Your task to perform on an android device: all mails in gmail Image 0: 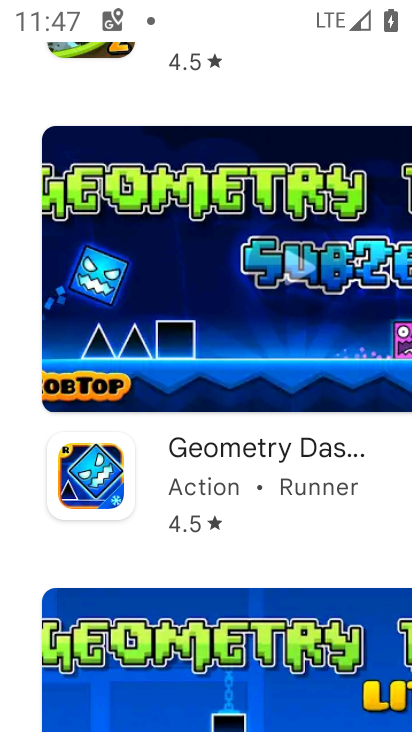
Step 0: press home button
Your task to perform on an android device: all mails in gmail Image 1: 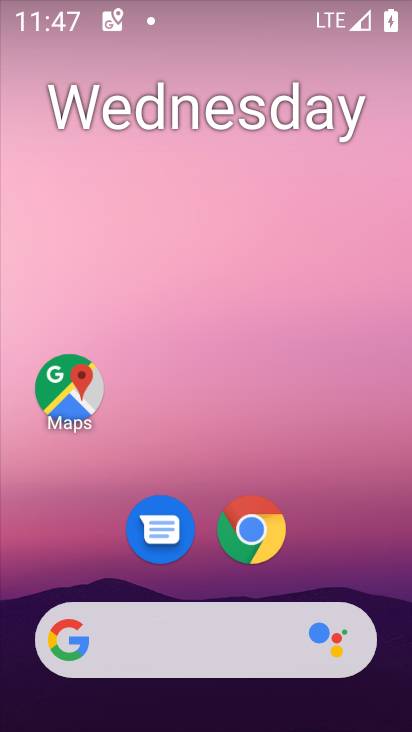
Step 1: drag from (386, 626) to (350, 128)
Your task to perform on an android device: all mails in gmail Image 2: 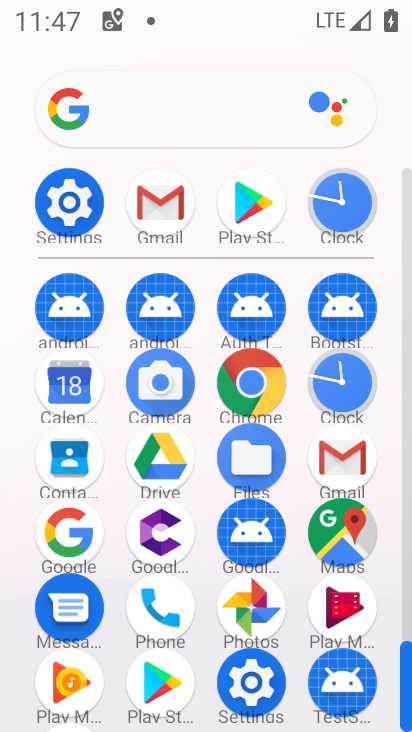
Step 2: click (338, 455)
Your task to perform on an android device: all mails in gmail Image 3: 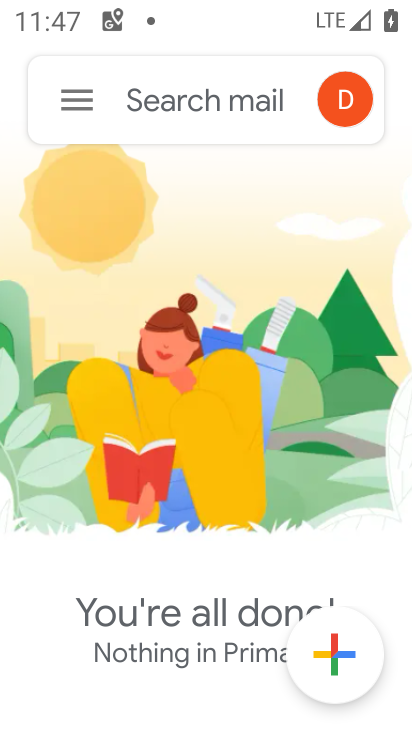
Step 3: click (70, 98)
Your task to perform on an android device: all mails in gmail Image 4: 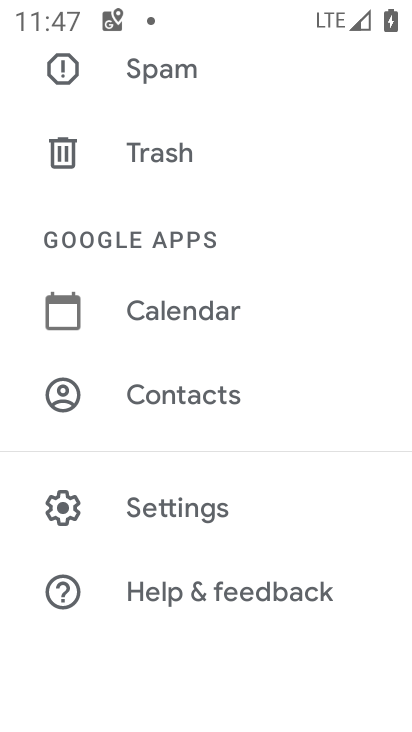
Step 4: drag from (325, 203) to (332, 469)
Your task to perform on an android device: all mails in gmail Image 5: 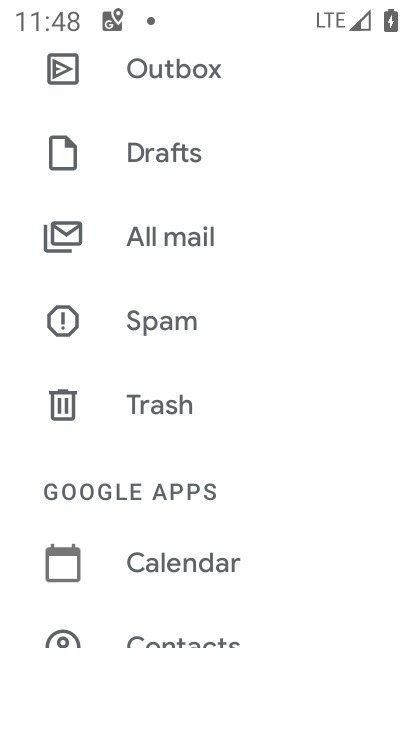
Step 5: click (170, 237)
Your task to perform on an android device: all mails in gmail Image 6: 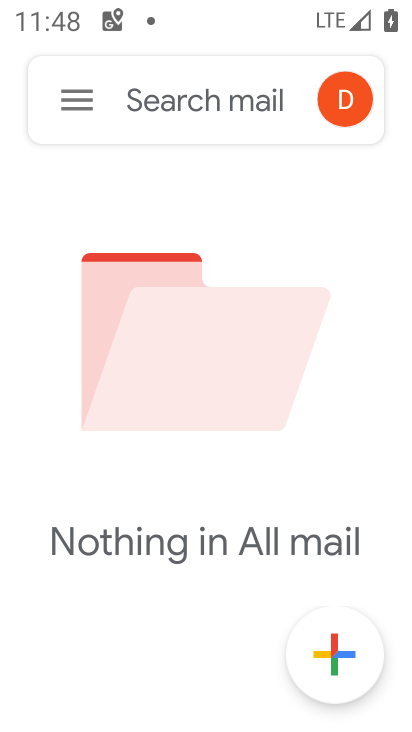
Step 6: task complete